Your task to perform on an android device: Show me popular games on the Play Store Image 0: 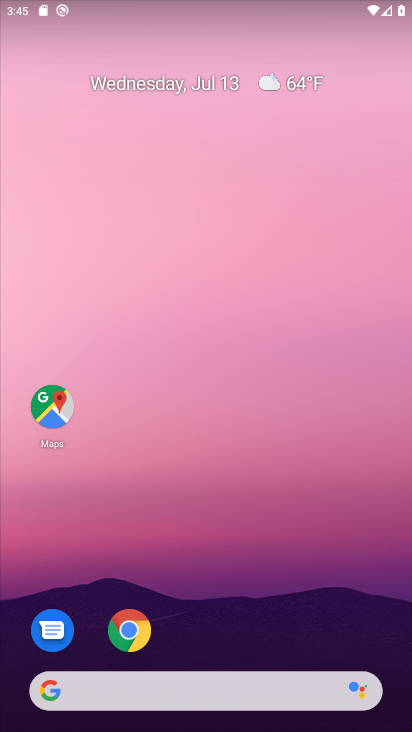
Step 0: drag from (201, 636) to (251, 57)
Your task to perform on an android device: Show me popular games on the Play Store Image 1: 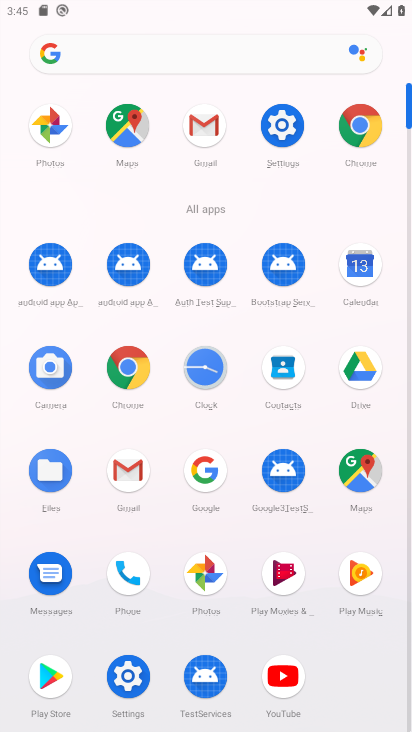
Step 1: click (47, 690)
Your task to perform on an android device: Show me popular games on the Play Store Image 2: 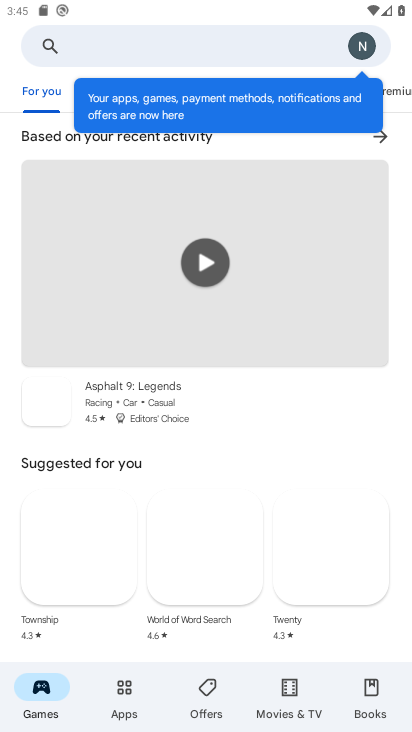
Step 2: click (101, 88)
Your task to perform on an android device: Show me popular games on the Play Store Image 3: 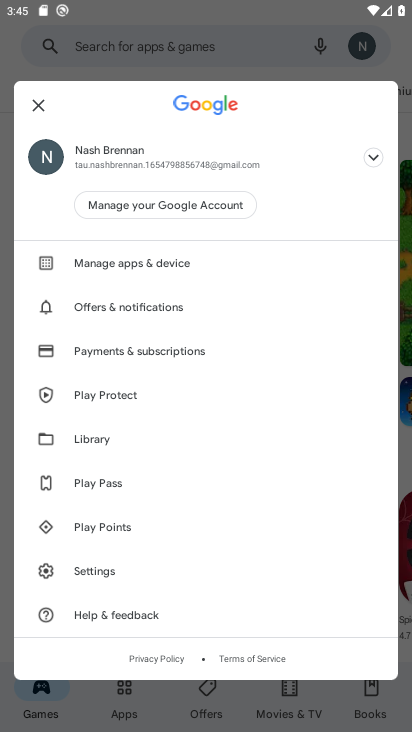
Step 3: click (40, 98)
Your task to perform on an android device: Show me popular games on the Play Store Image 4: 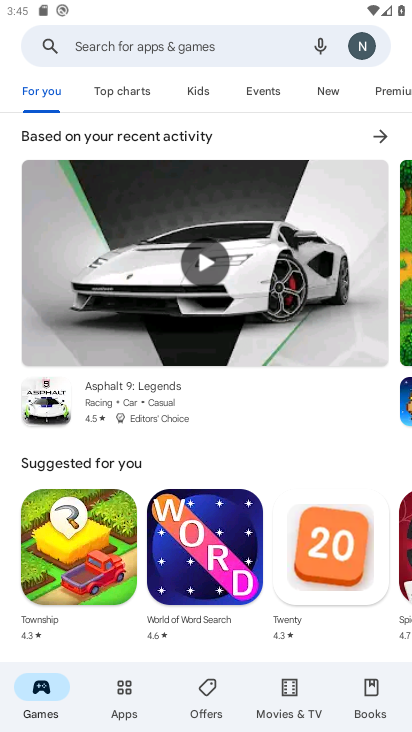
Step 4: click (122, 106)
Your task to perform on an android device: Show me popular games on the Play Store Image 5: 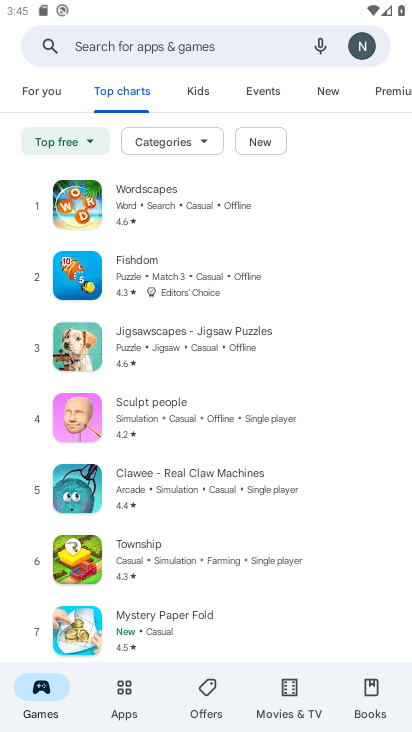
Step 5: task complete